Your task to perform on an android device: refresh tabs in the chrome app Image 0: 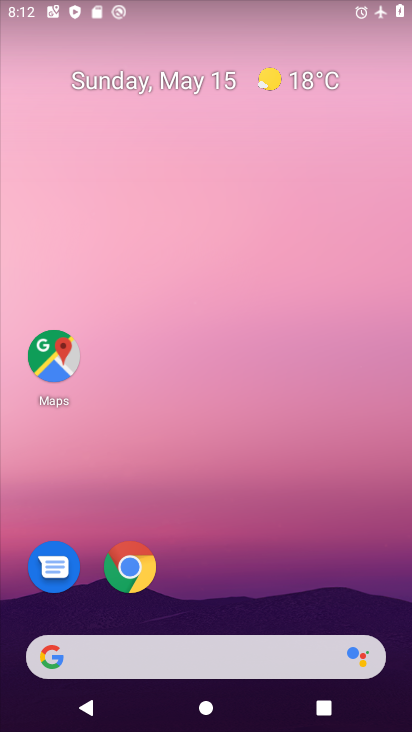
Step 0: click (136, 548)
Your task to perform on an android device: refresh tabs in the chrome app Image 1: 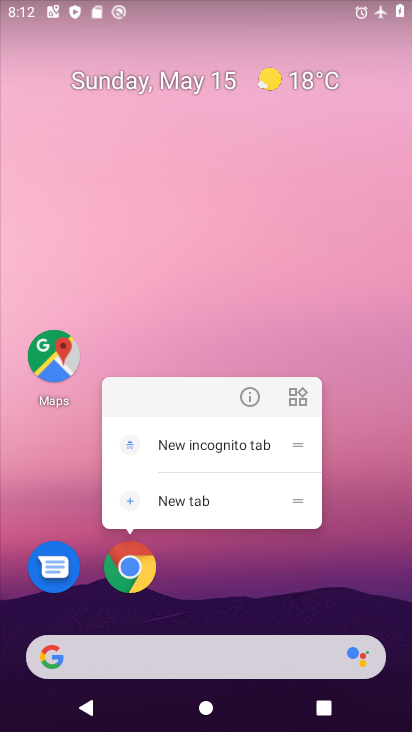
Step 1: click (120, 572)
Your task to perform on an android device: refresh tabs in the chrome app Image 2: 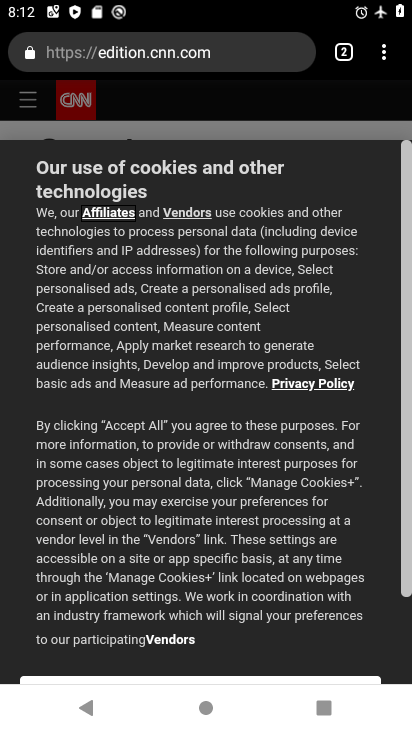
Step 2: click (385, 59)
Your task to perform on an android device: refresh tabs in the chrome app Image 3: 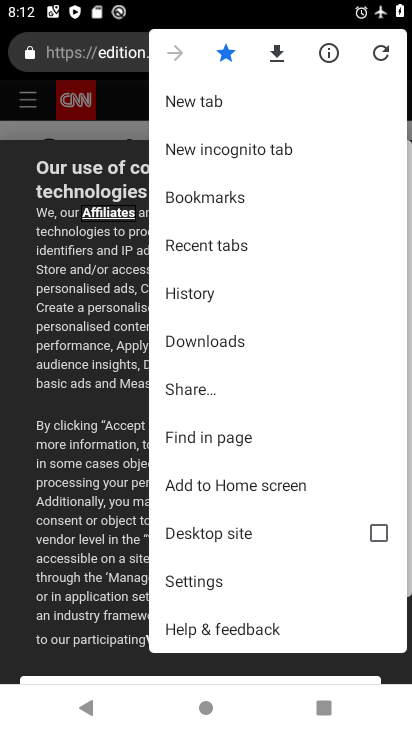
Step 3: click (377, 53)
Your task to perform on an android device: refresh tabs in the chrome app Image 4: 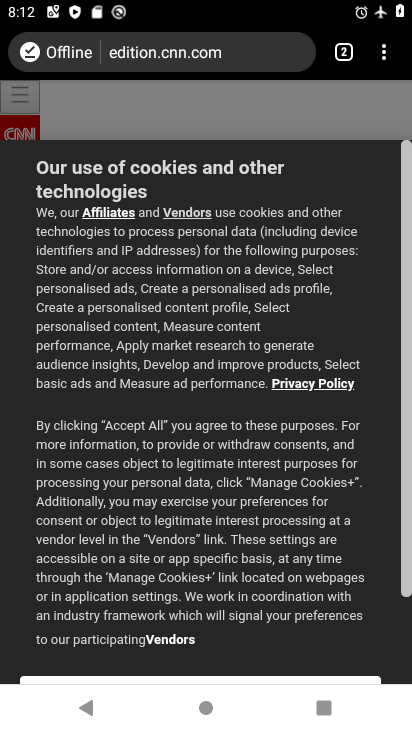
Step 4: task complete